Your task to perform on an android device: toggle improve location accuracy Image 0: 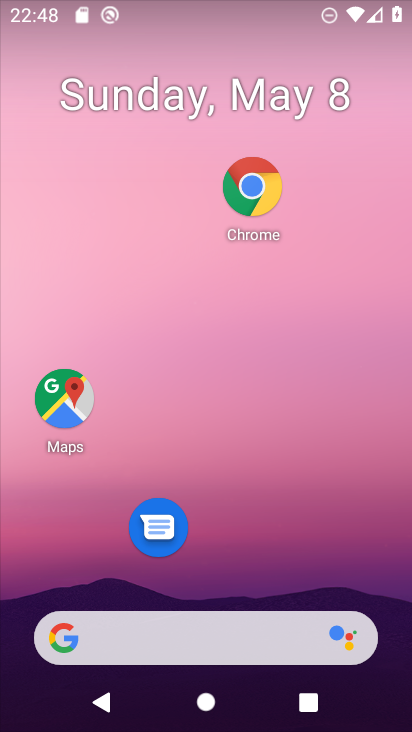
Step 0: drag from (272, 571) to (266, 280)
Your task to perform on an android device: toggle improve location accuracy Image 1: 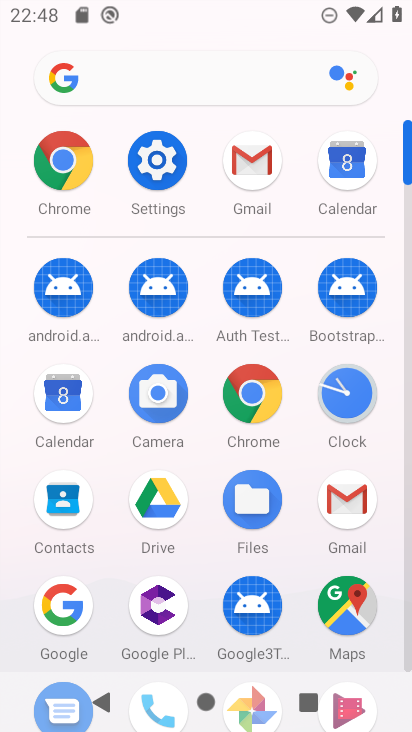
Step 1: click (136, 160)
Your task to perform on an android device: toggle improve location accuracy Image 2: 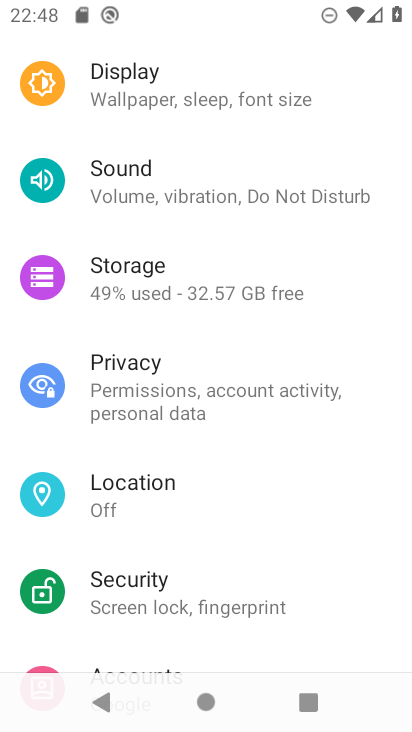
Step 2: click (217, 506)
Your task to perform on an android device: toggle improve location accuracy Image 3: 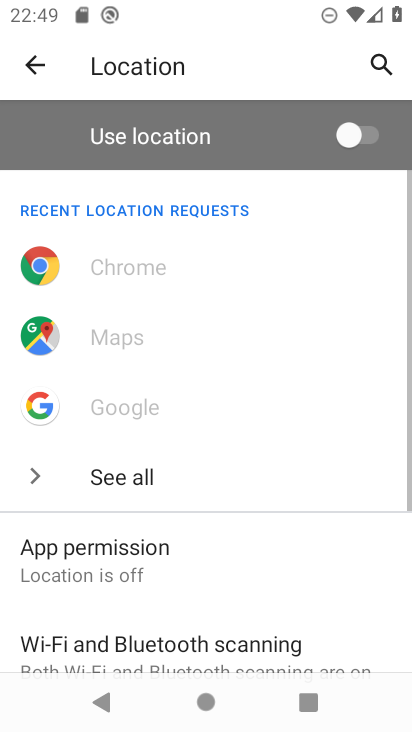
Step 3: drag from (230, 597) to (305, 218)
Your task to perform on an android device: toggle improve location accuracy Image 4: 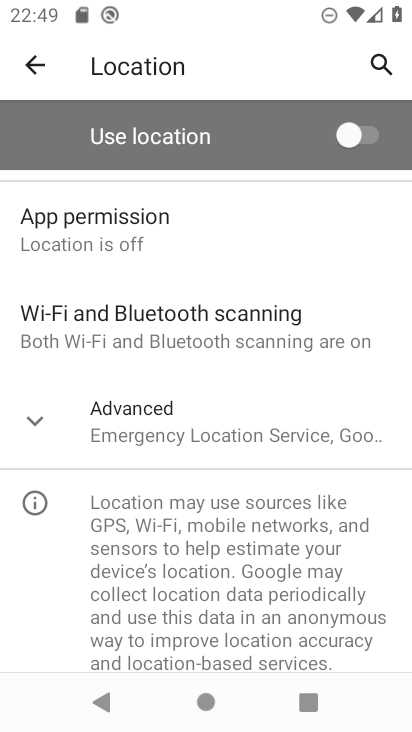
Step 4: click (204, 445)
Your task to perform on an android device: toggle improve location accuracy Image 5: 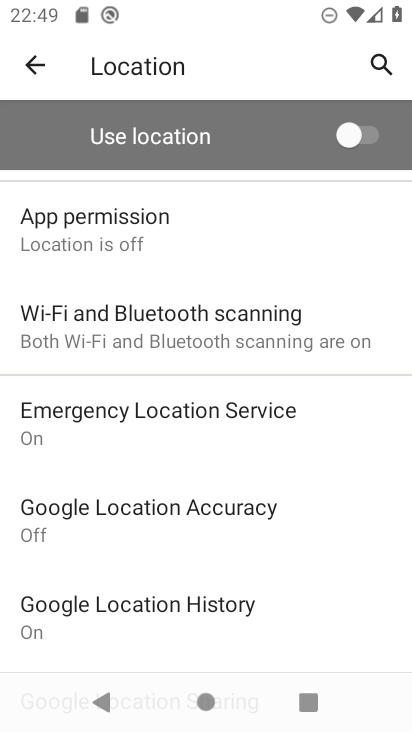
Step 5: click (247, 510)
Your task to perform on an android device: toggle improve location accuracy Image 6: 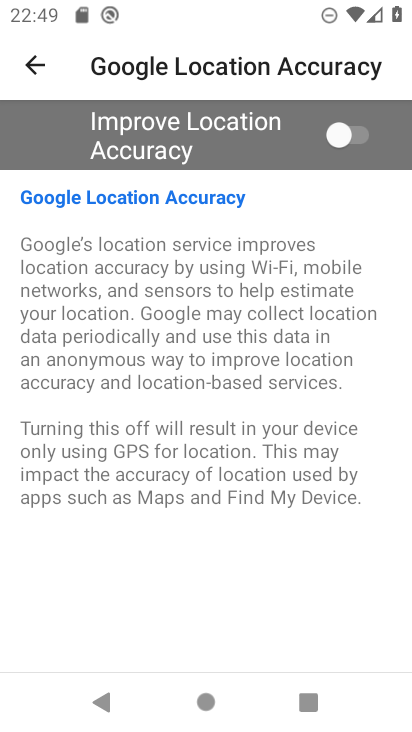
Step 6: click (353, 124)
Your task to perform on an android device: toggle improve location accuracy Image 7: 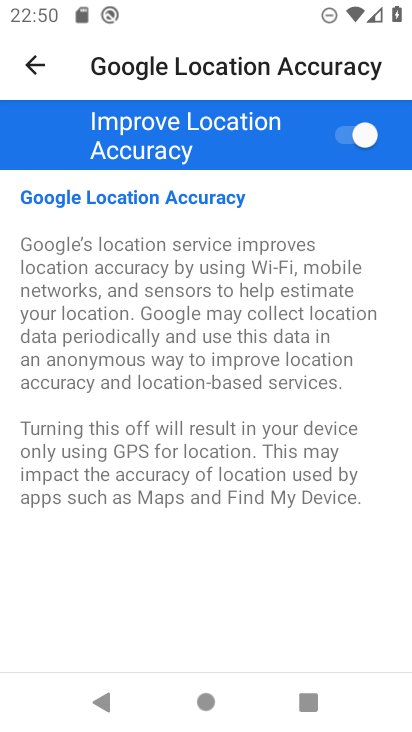
Step 7: task complete